Your task to perform on an android device: change keyboard looks Image 0: 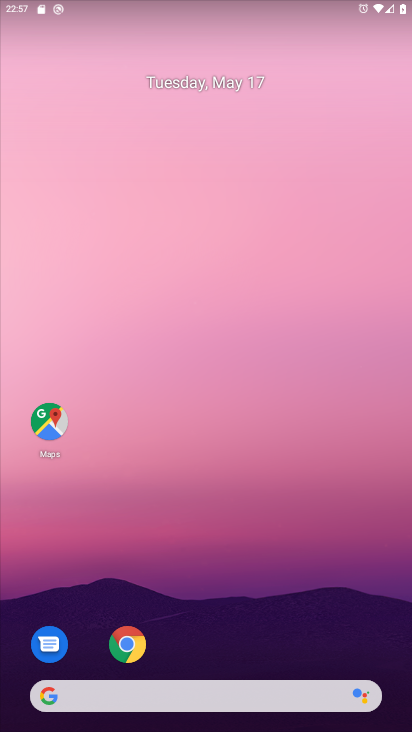
Step 0: press home button
Your task to perform on an android device: change keyboard looks Image 1: 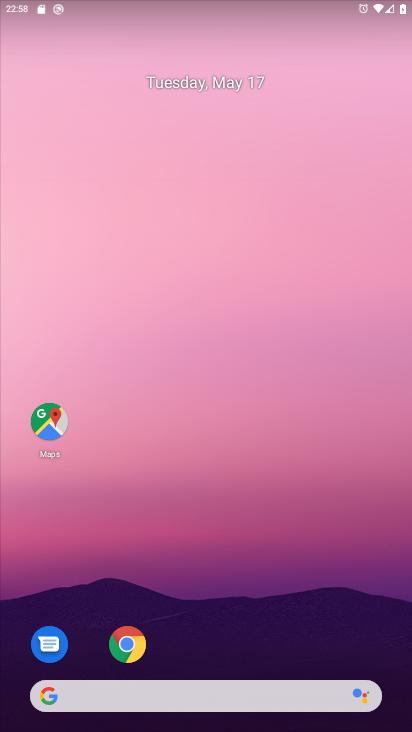
Step 1: drag from (222, 661) to (259, 66)
Your task to perform on an android device: change keyboard looks Image 2: 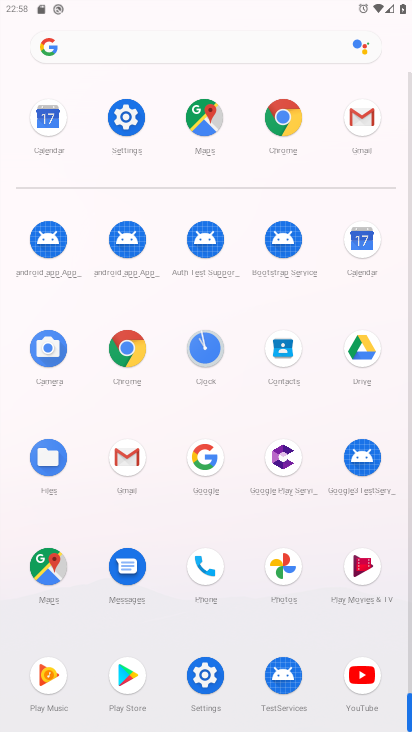
Step 2: click (123, 110)
Your task to perform on an android device: change keyboard looks Image 3: 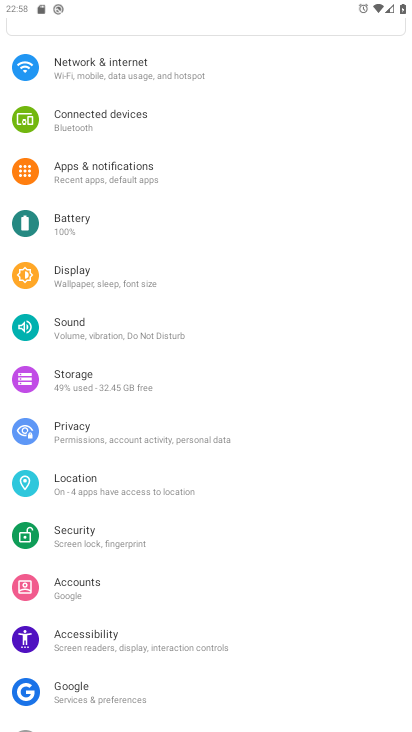
Step 3: drag from (147, 666) to (168, 75)
Your task to perform on an android device: change keyboard looks Image 4: 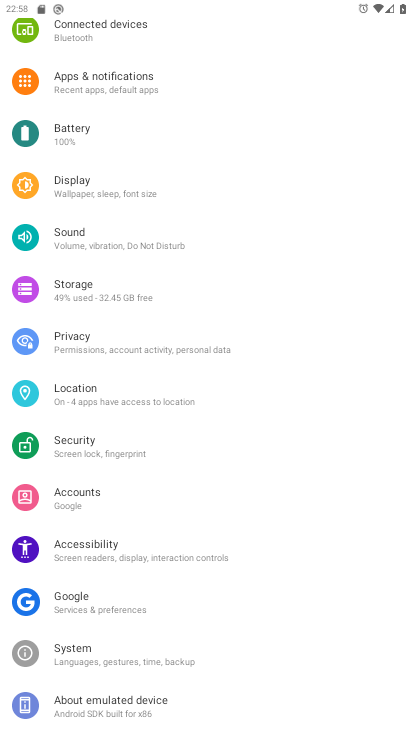
Step 4: click (105, 645)
Your task to perform on an android device: change keyboard looks Image 5: 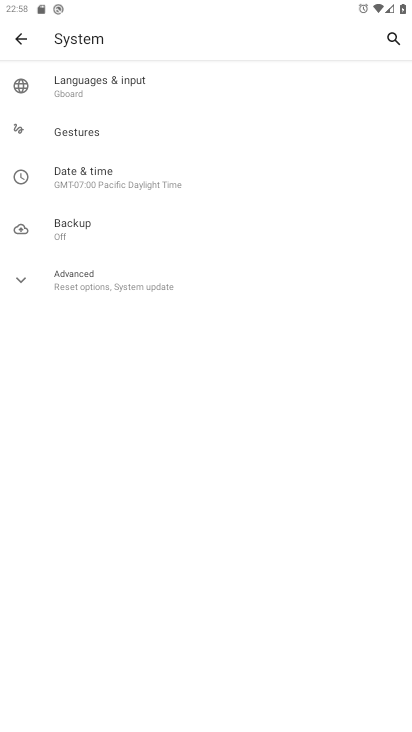
Step 5: click (105, 84)
Your task to perform on an android device: change keyboard looks Image 6: 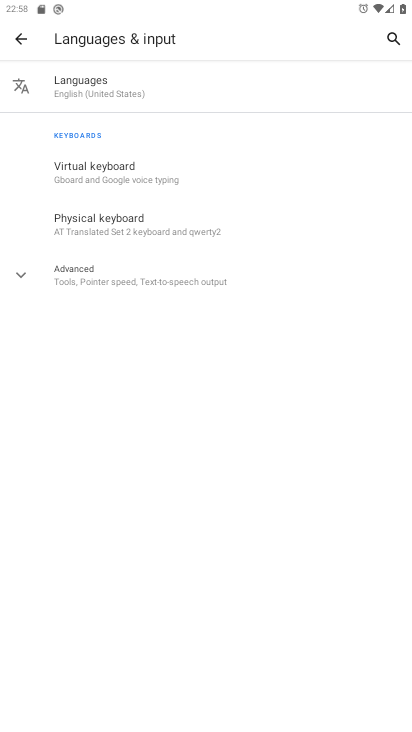
Step 6: click (141, 165)
Your task to perform on an android device: change keyboard looks Image 7: 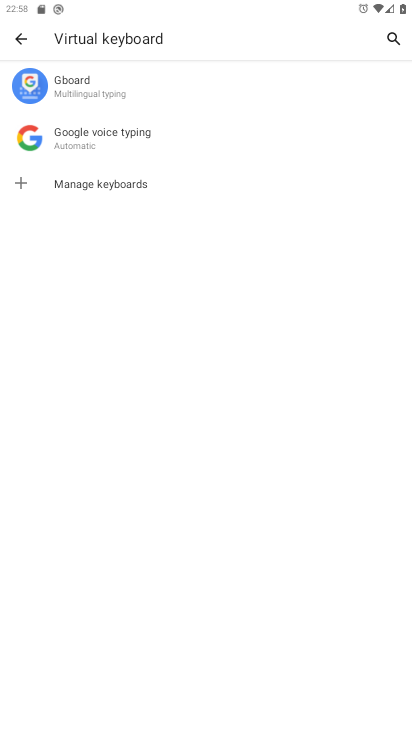
Step 7: click (99, 75)
Your task to perform on an android device: change keyboard looks Image 8: 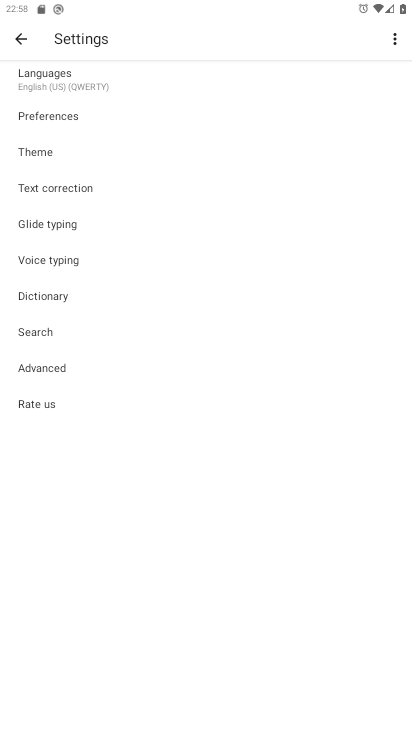
Step 8: click (61, 145)
Your task to perform on an android device: change keyboard looks Image 9: 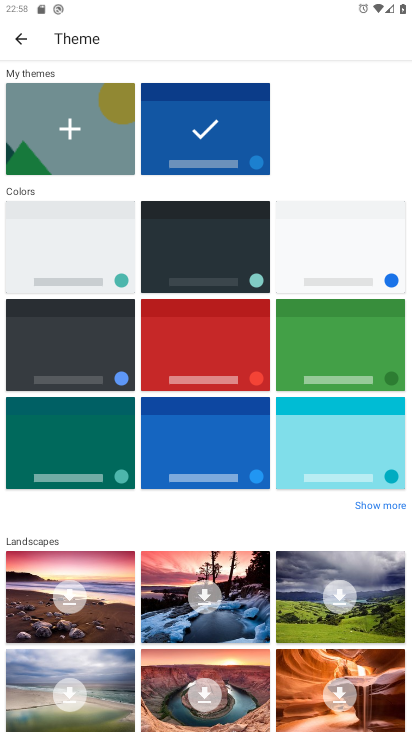
Step 9: click (340, 245)
Your task to perform on an android device: change keyboard looks Image 10: 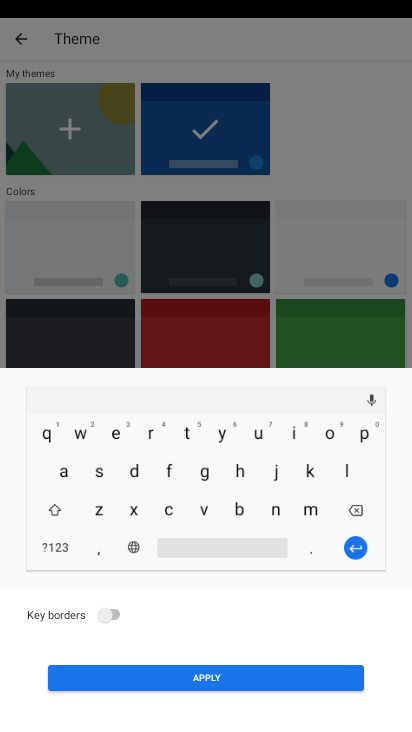
Step 10: click (206, 679)
Your task to perform on an android device: change keyboard looks Image 11: 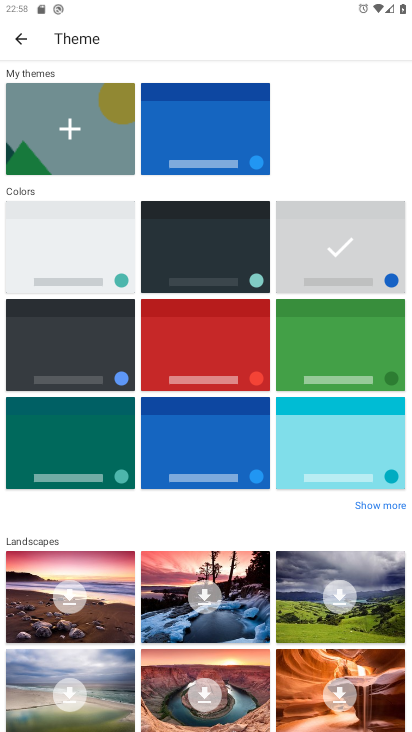
Step 11: task complete